Your task to perform on an android device: change notifications settings Image 0: 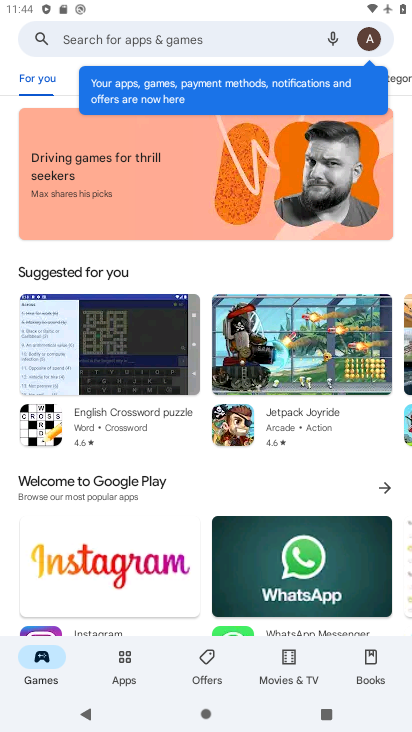
Step 0: press home button
Your task to perform on an android device: change notifications settings Image 1: 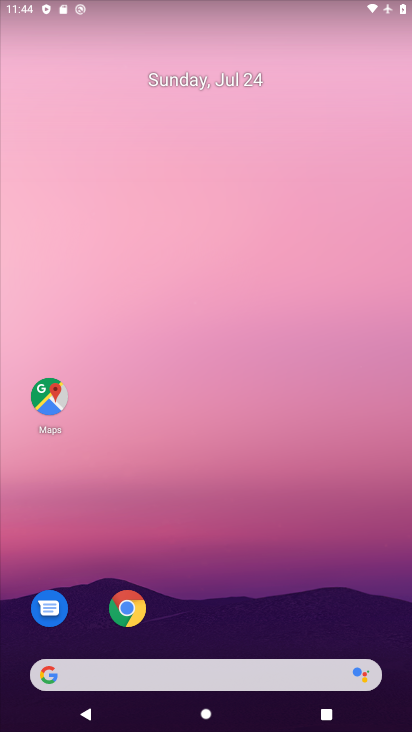
Step 1: drag from (243, 626) to (329, 1)
Your task to perform on an android device: change notifications settings Image 2: 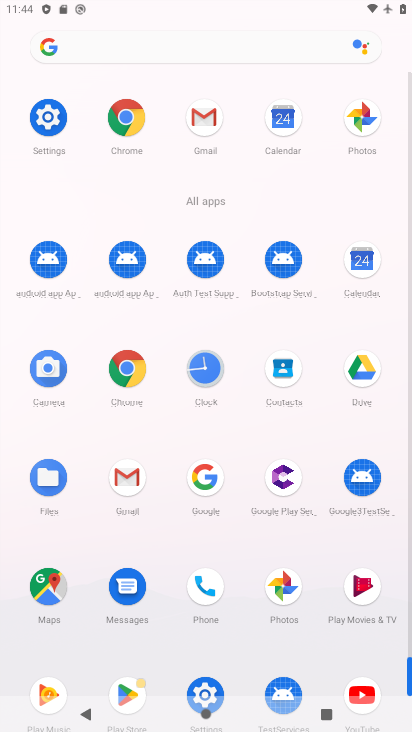
Step 2: click (51, 135)
Your task to perform on an android device: change notifications settings Image 3: 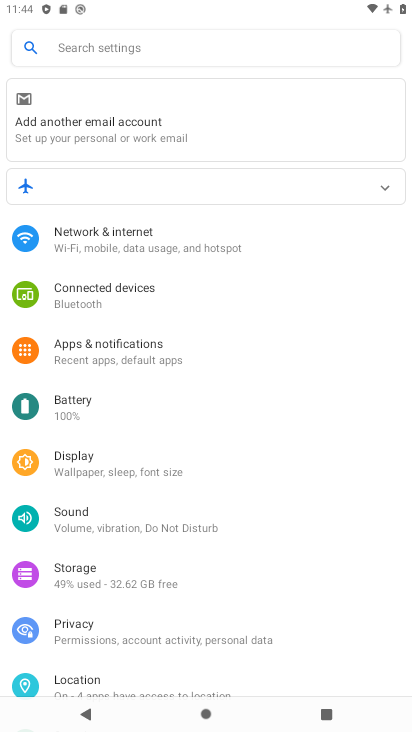
Step 3: click (150, 362)
Your task to perform on an android device: change notifications settings Image 4: 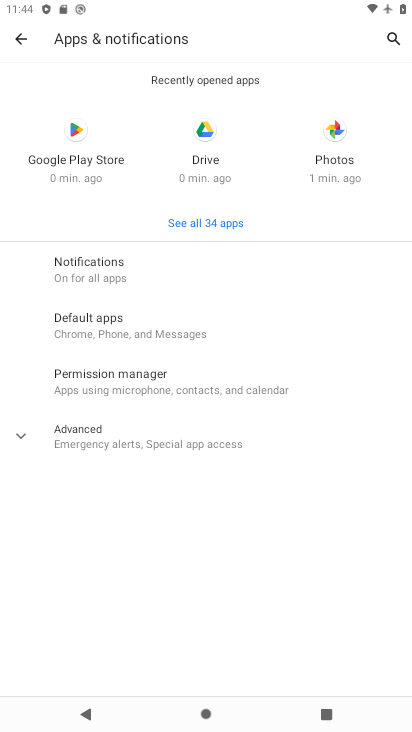
Step 4: click (123, 275)
Your task to perform on an android device: change notifications settings Image 5: 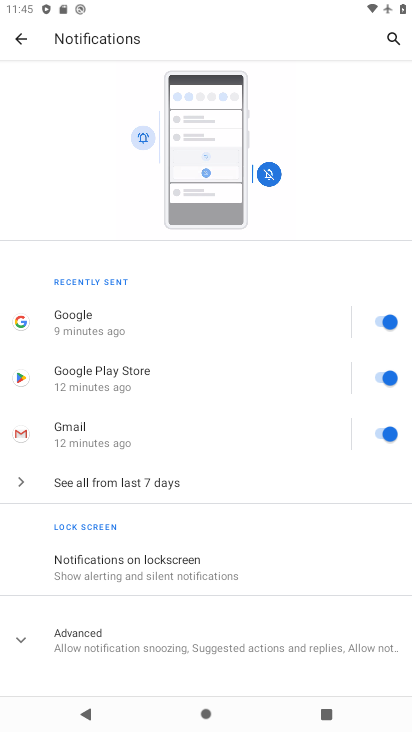
Step 5: click (380, 326)
Your task to perform on an android device: change notifications settings Image 6: 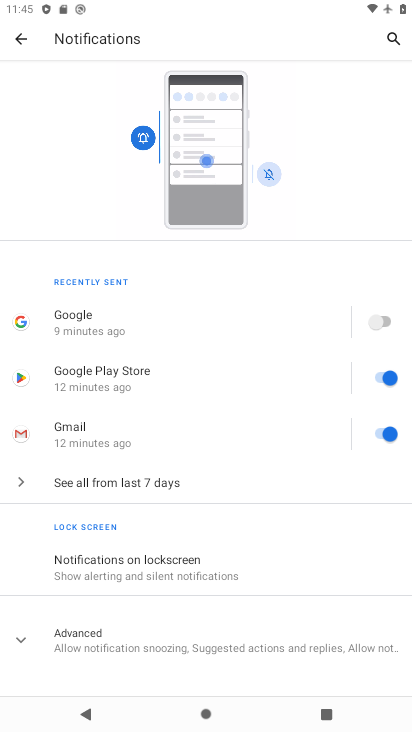
Step 6: task complete